Your task to perform on an android device: open app "Speedtest by Ookla" (install if not already installed) and enter user name: "hyena@outlook.com" and password: "terminators" Image 0: 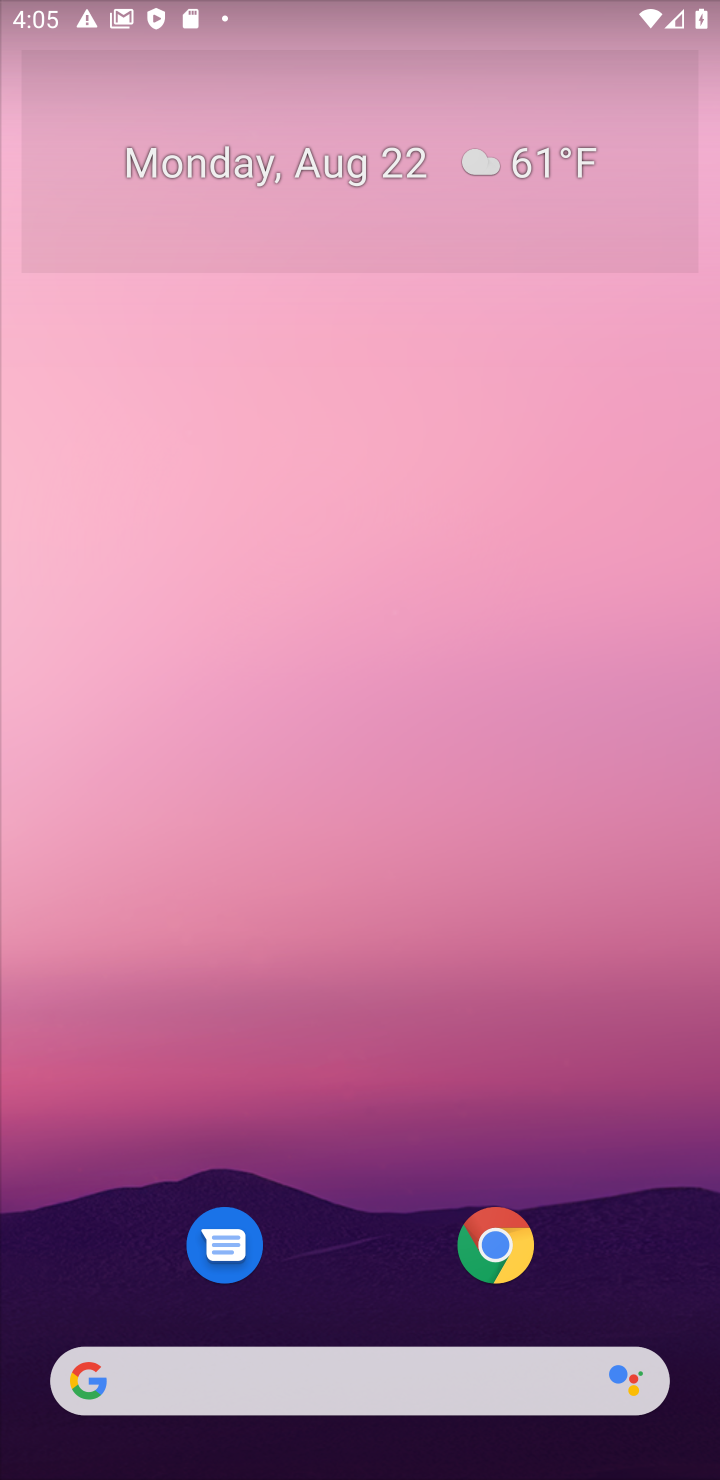
Step 0: drag from (623, 1184) to (604, 161)
Your task to perform on an android device: open app "Speedtest by Ookla" (install if not already installed) and enter user name: "hyena@outlook.com" and password: "terminators" Image 1: 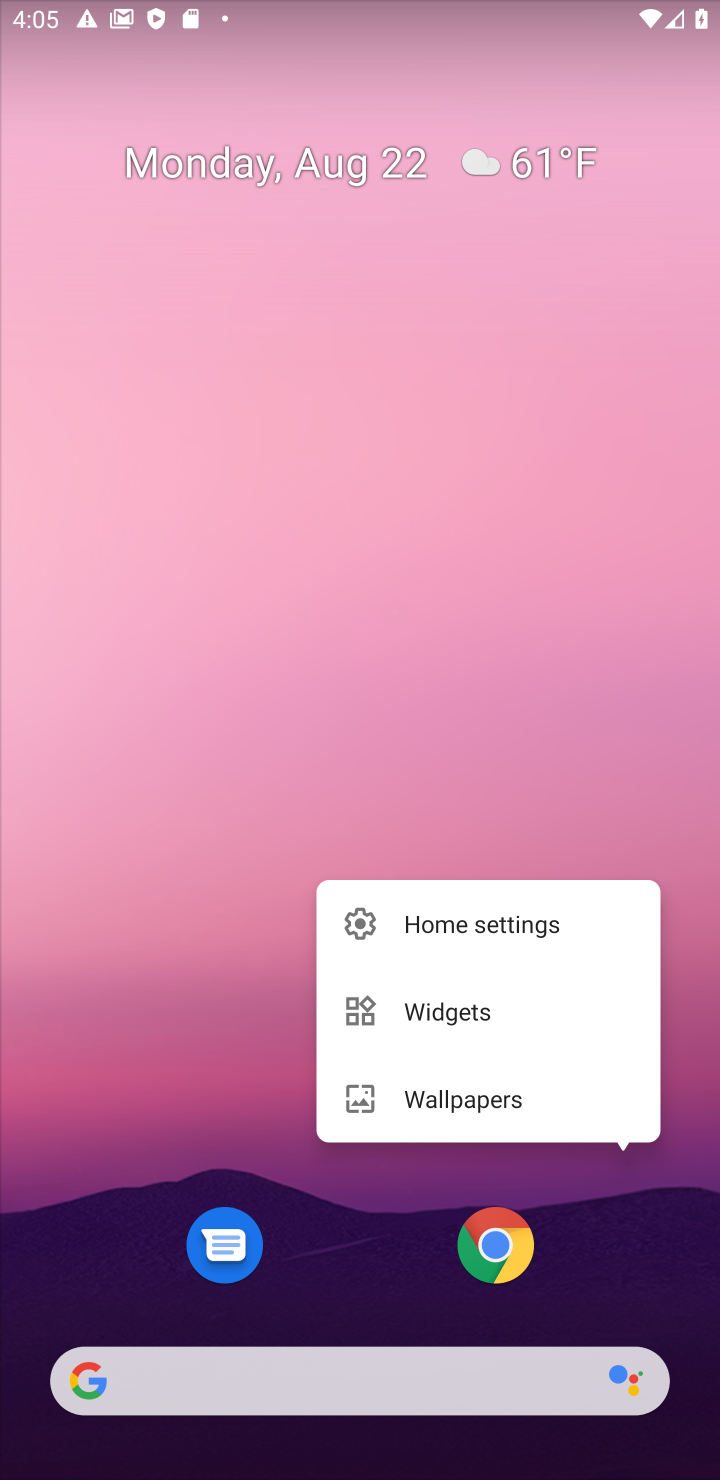
Step 1: click (602, 512)
Your task to perform on an android device: open app "Speedtest by Ookla" (install if not already installed) and enter user name: "hyena@outlook.com" and password: "terminators" Image 2: 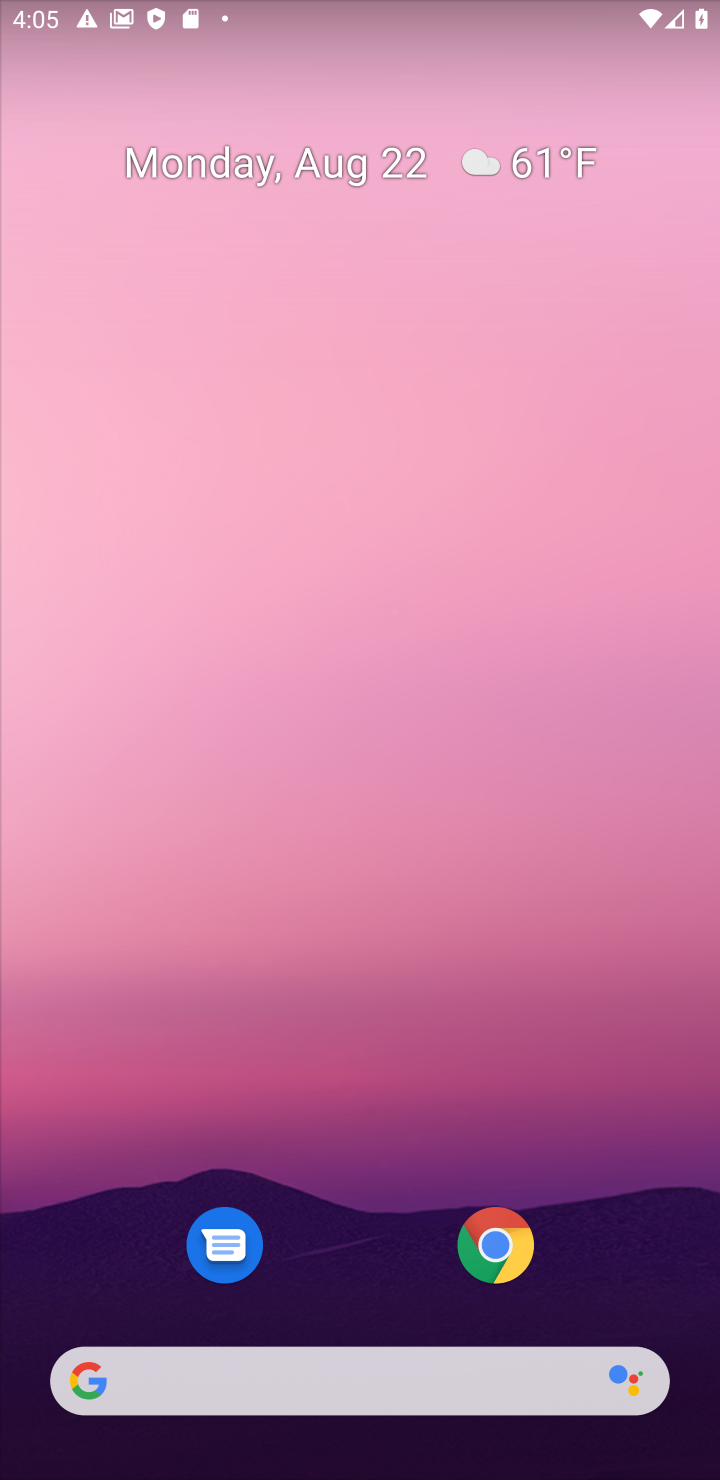
Step 2: drag from (628, 1099) to (610, 161)
Your task to perform on an android device: open app "Speedtest by Ookla" (install if not already installed) and enter user name: "hyena@outlook.com" and password: "terminators" Image 3: 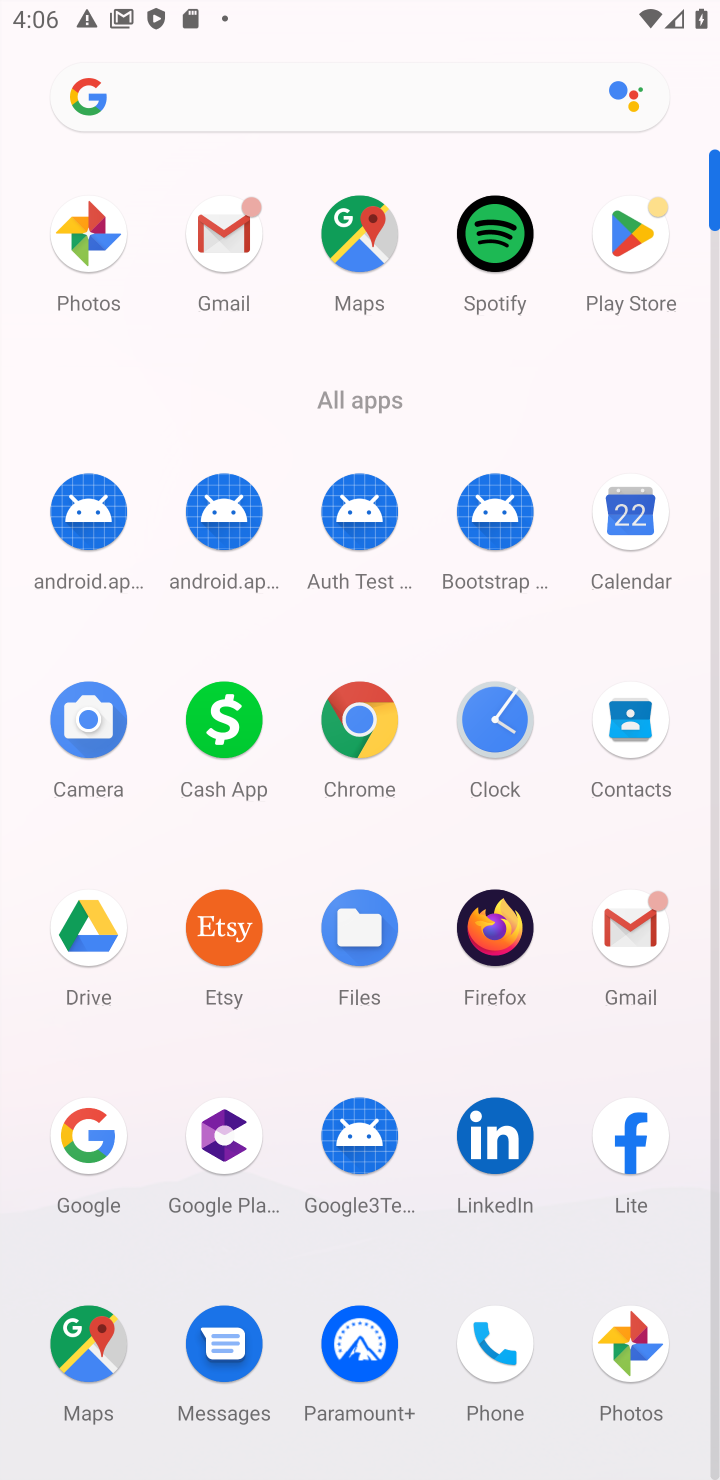
Step 3: click (624, 228)
Your task to perform on an android device: open app "Speedtest by Ookla" (install if not already installed) and enter user name: "hyena@outlook.com" and password: "terminators" Image 4: 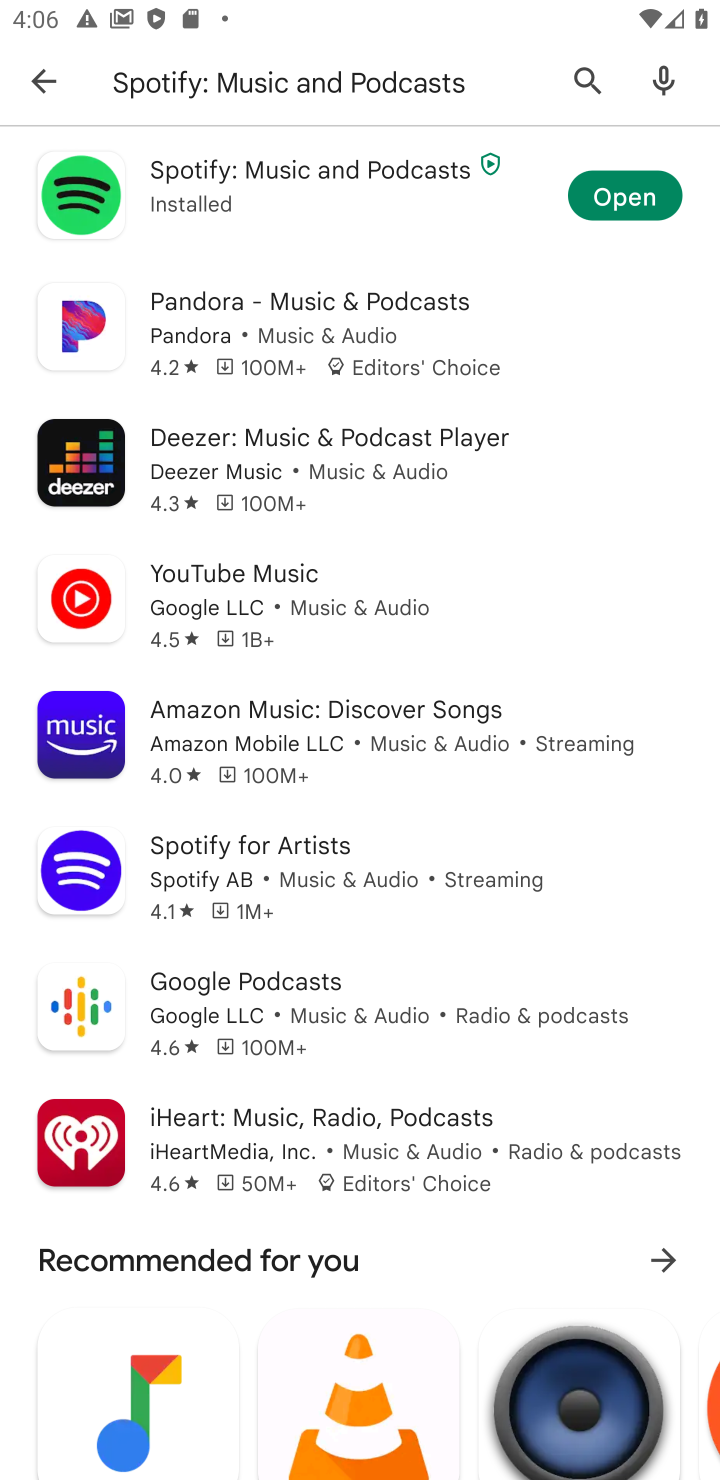
Step 4: press back button
Your task to perform on an android device: open app "Speedtest by Ookla" (install if not already installed) and enter user name: "hyena@outlook.com" and password: "terminators" Image 5: 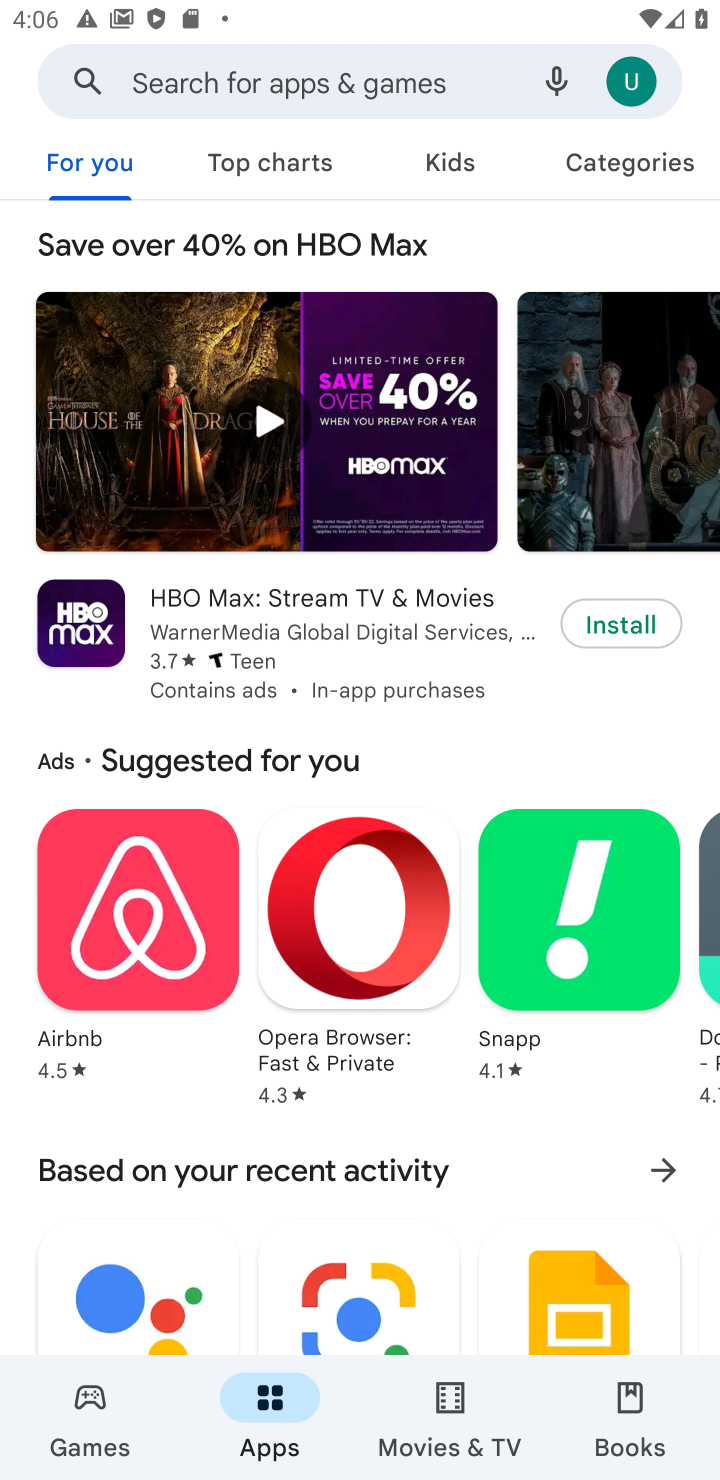
Step 5: click (316, 77)
Your task to perform on an android device: open app "Speedtest by Ookla" (install if not already installed) and enter user name: "hyena@outlook.com" and password: "terminators" Image 6: 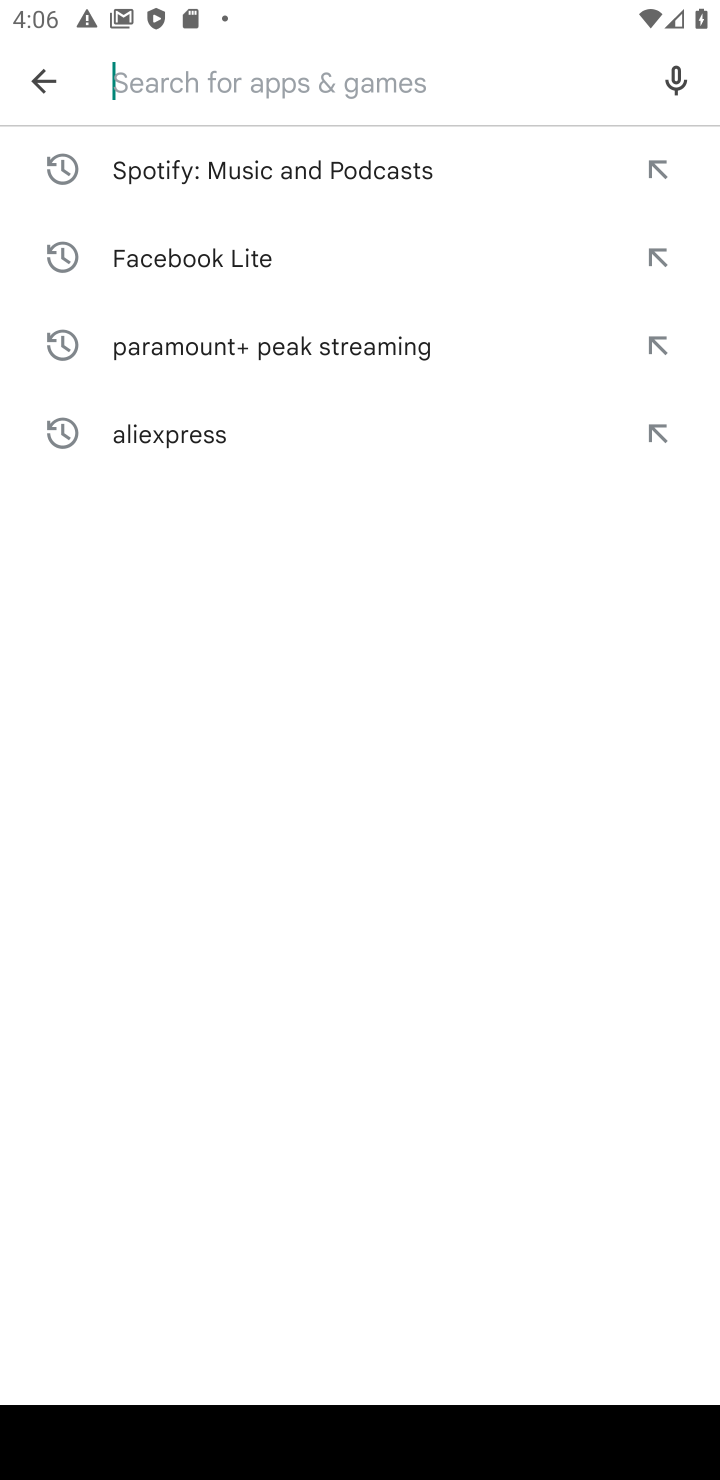
Step 6: type "Speedtest by Ookla"
Your task to perform on an android device: open app "Speedtest by Ookla" (install if not already installed) and enter user name: "hyena@outlook.com" and password: "terminators" Image 7: 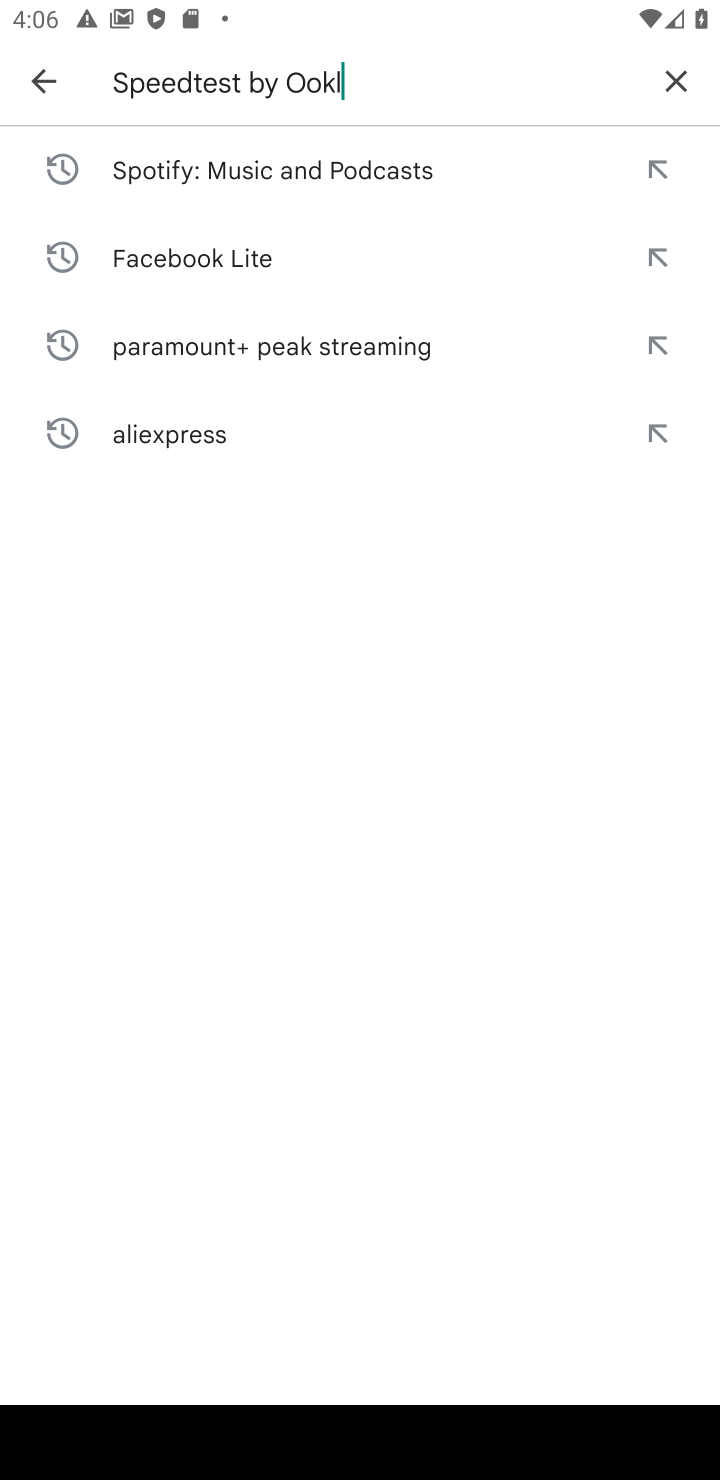
Step 7: press enter
Your task to perform on an android device: open app "Speedtest by Ookla" (install if not already installed) and enter user name: "hyena@outlook.com" and password: "terminators" Image 8: 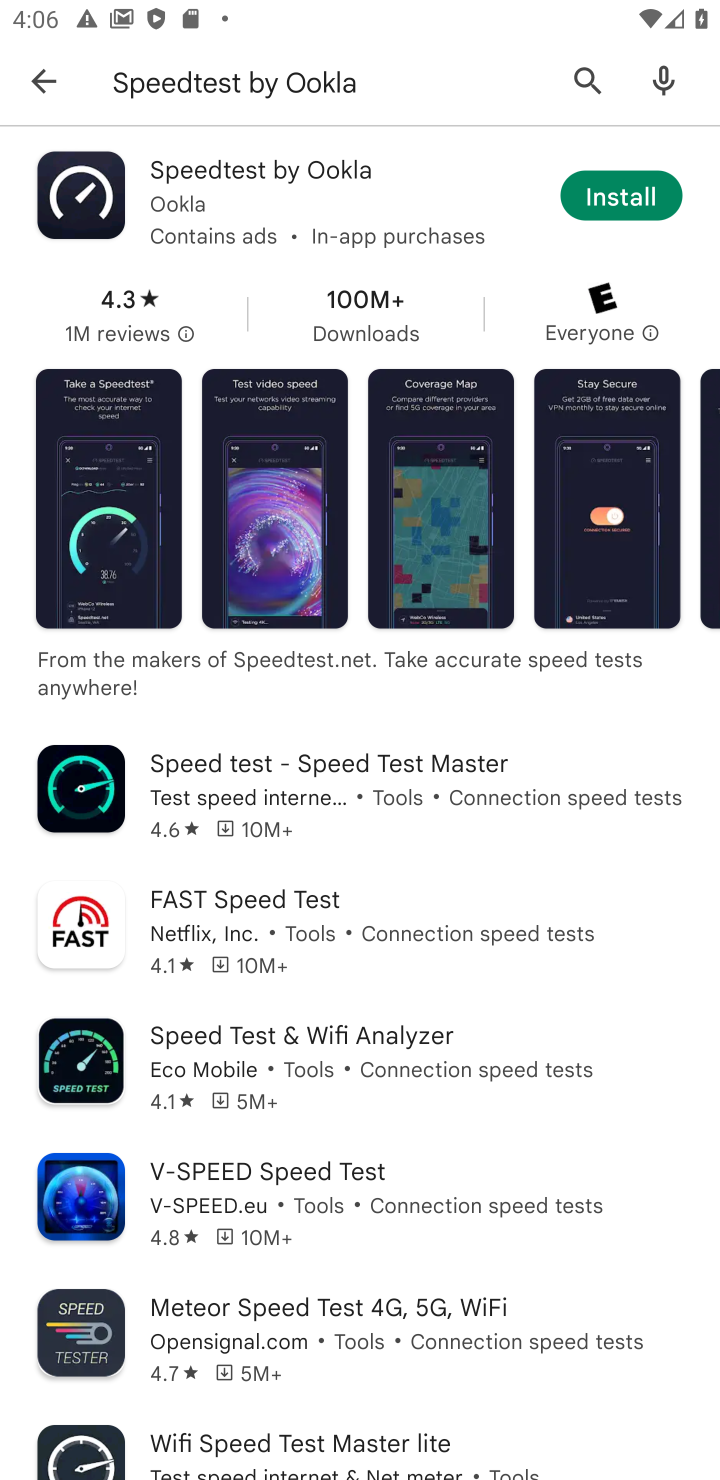
Step 8: click (619, 194)
Your task to perform on an android device: open app "Speedtest by Ookla" (install if not already installed) and enter user name: "hyena@outlook.com" and password: "terminators" Image 9: 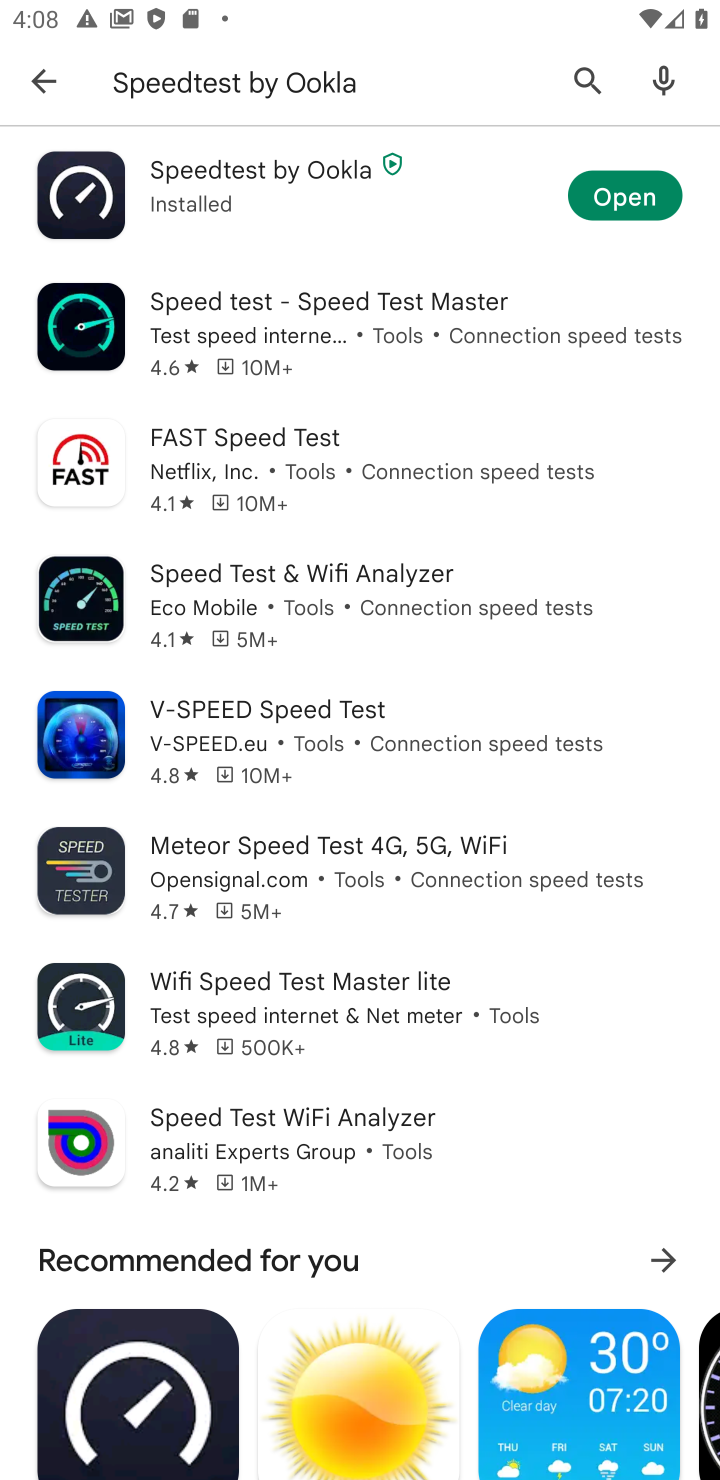
Step 9: click (620, 214)
Your task to perform on an android device: open app "Speedtest by Ookla" (install if not already installed) and enter user name: "hyena@outlook.com" and password: "terminators" Image 10: 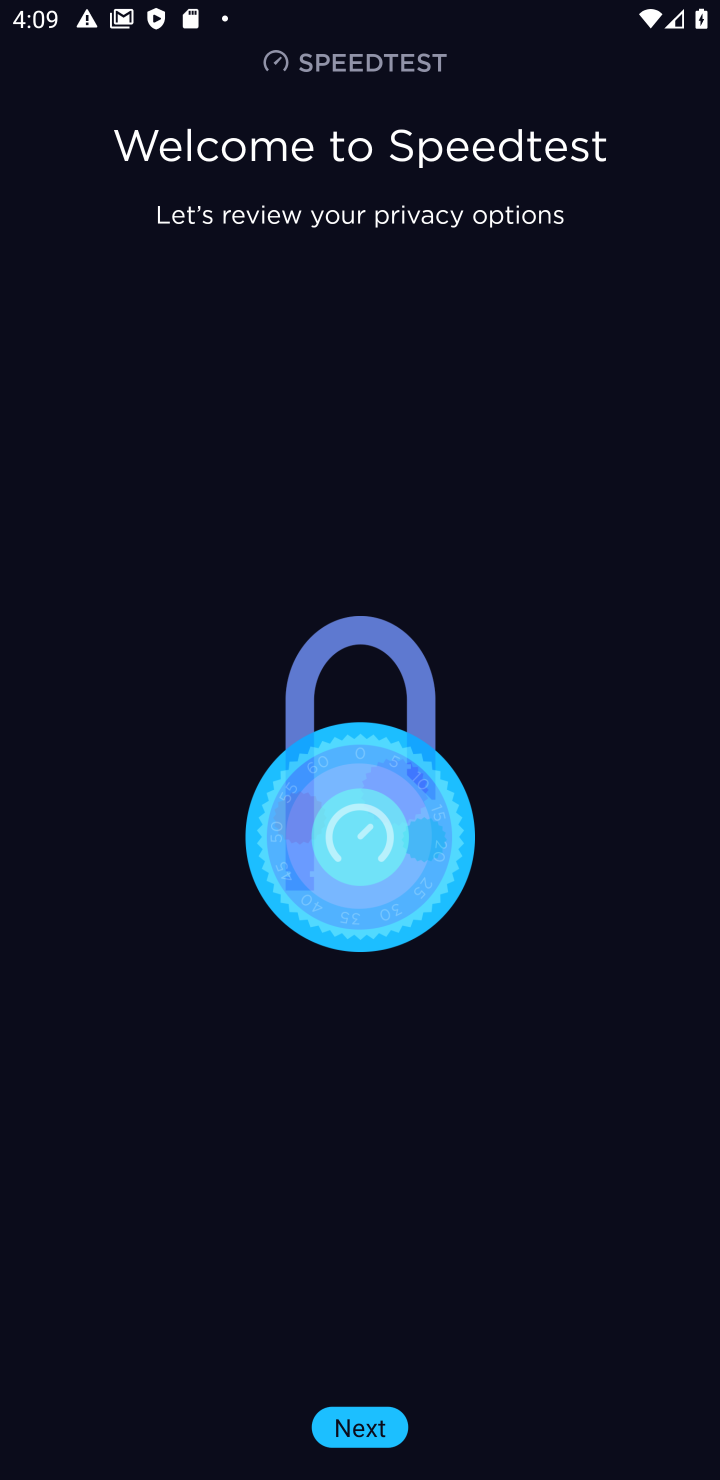
Step 10: click (372, 1430)
Your task to perform on an android device: open app "Speedtest by Ookla" (install if not already installed) and enter user name: "hyena@outlook.com" and password: "terminators" Image 11: 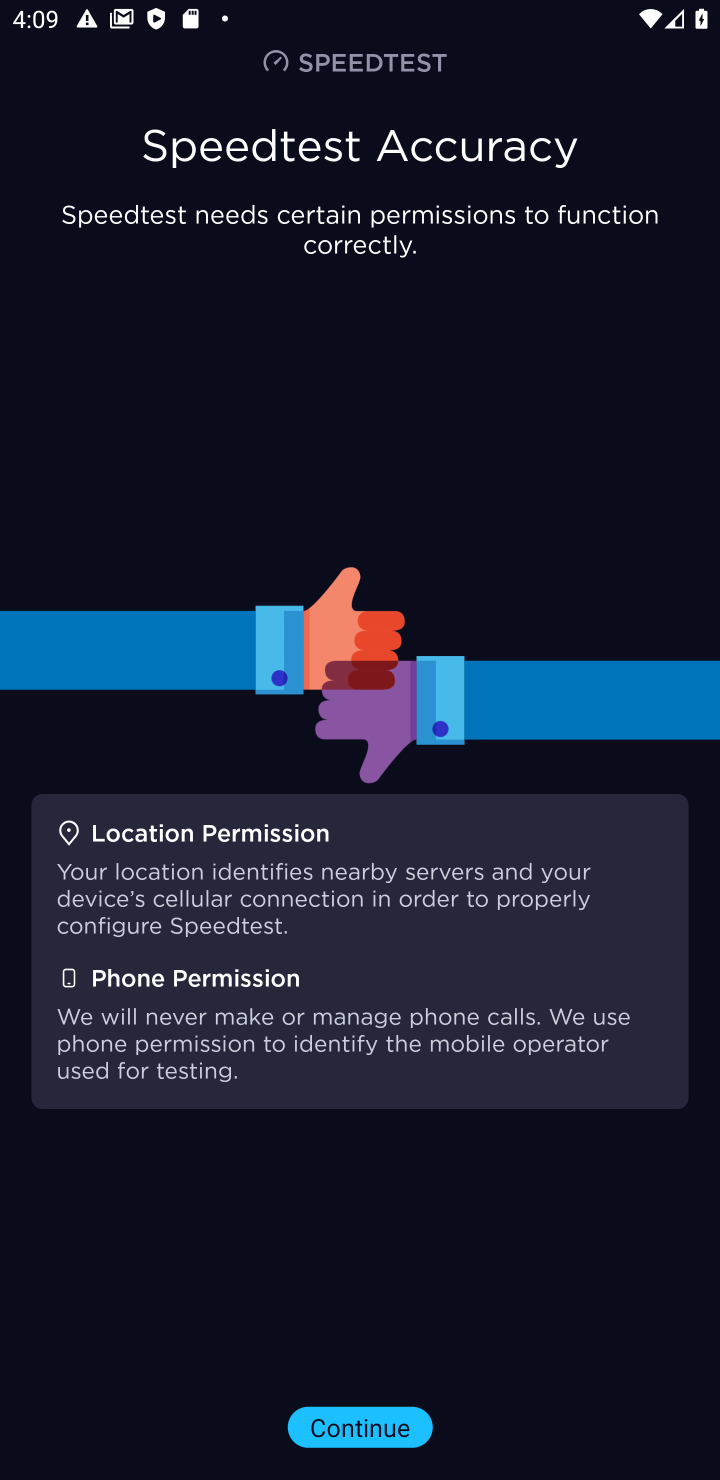
Step 11: click (414, 1445)
Your task to perform on an android device: open app "Speedtest by Ookla" (install if not already installed) and enter user name: "hyena@outlook.com" and password: "terminators" Image 12: 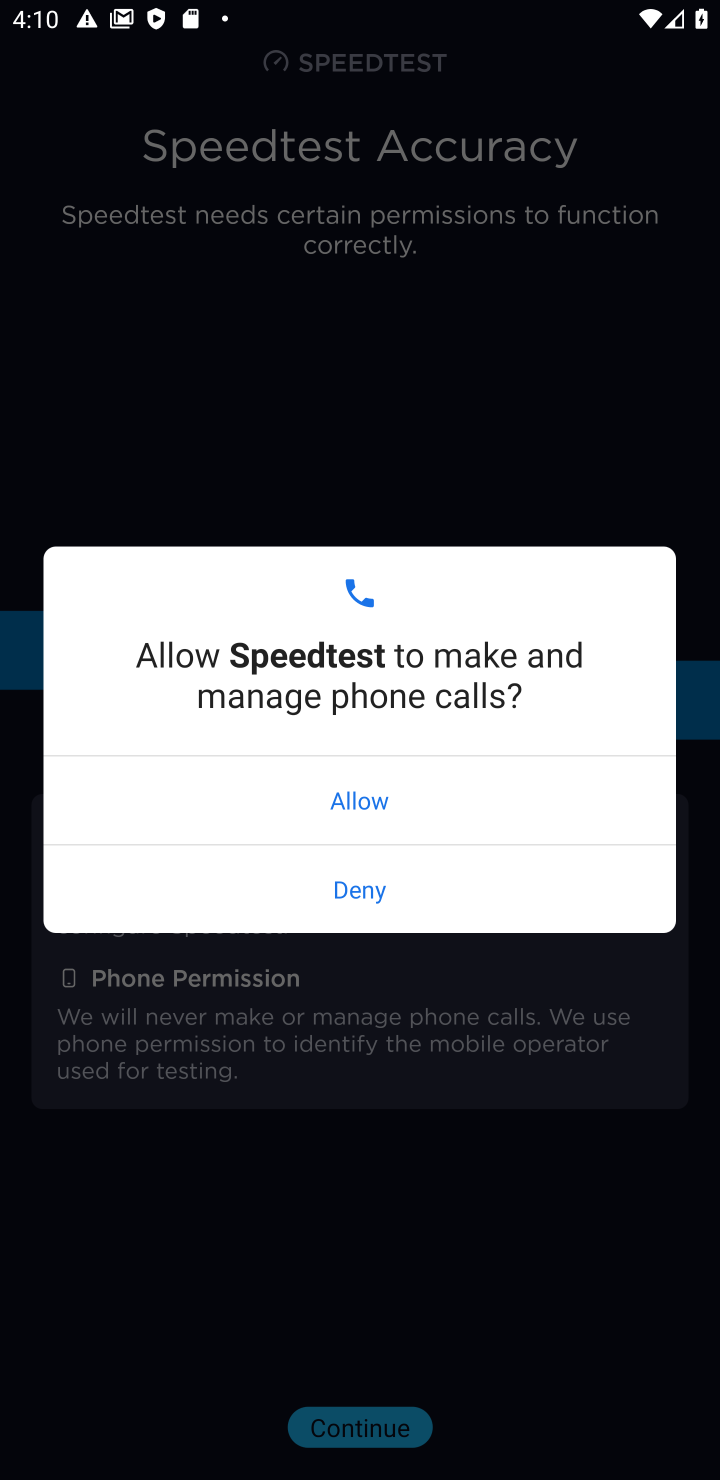
Step 12: task complete